Your task to perform on an android device: turn on translation in the chrome app Image 0: 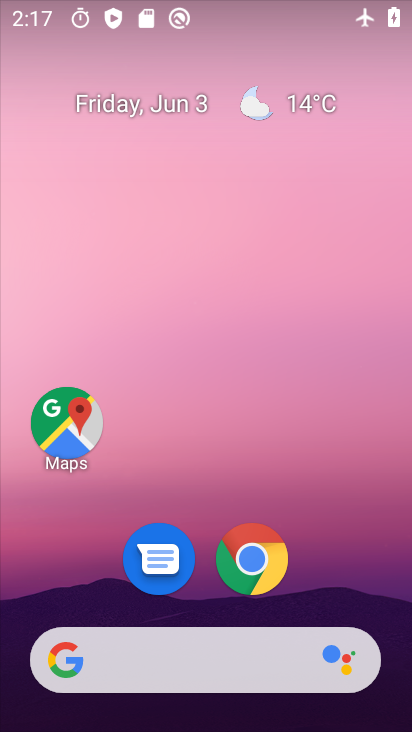
Step 0: click (247, 556)
Your task to perform on an android device: turn on translation in the chrome app Image 1: 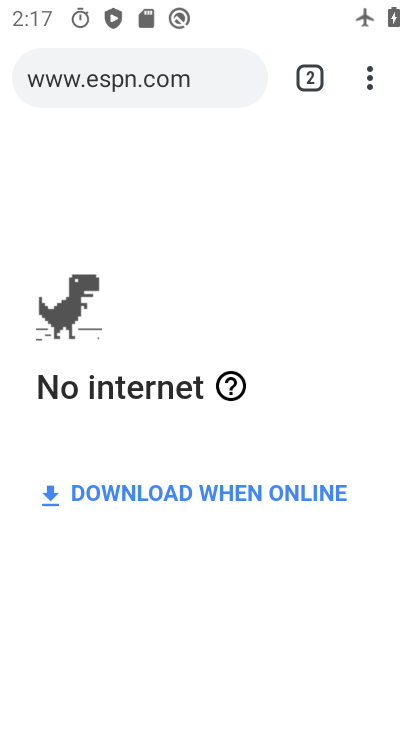
Step 1: click (357, 82)
Your task to perform on an android device: turn on translation in the chrome app Image 2: 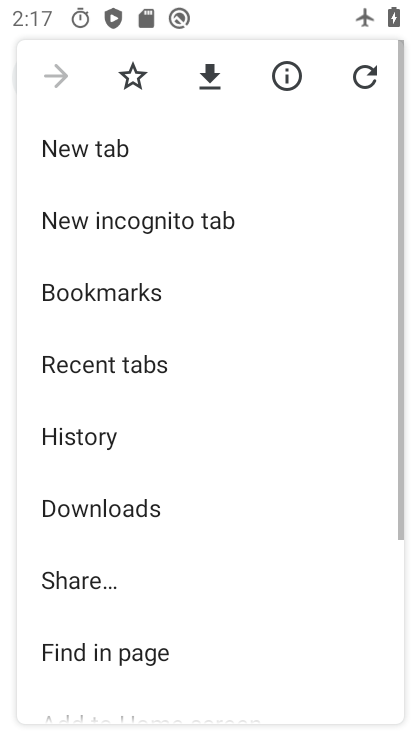
Step 2: drag from (192, 574) to (203, 129)
Your task to perform on an android device: turn on translation in the chrome app Image 3: 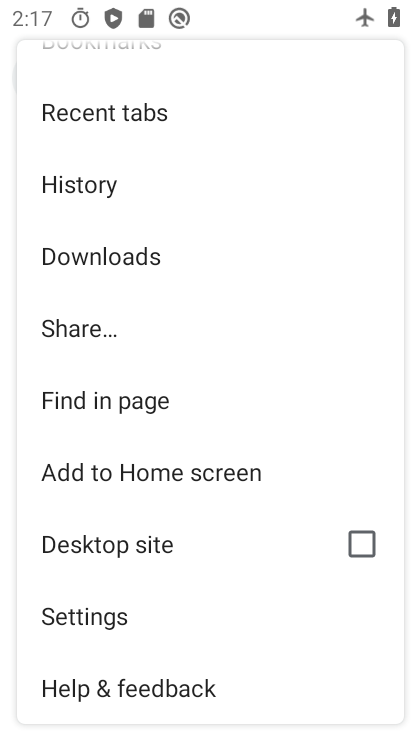
Step 3: click (122, 614)
Your task to perform on an android device: turn on translation in the chrome app Image 4: 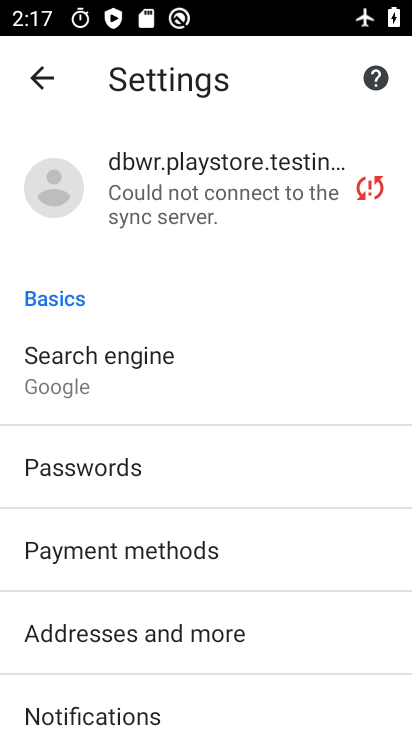
Step 4: drag from (133, 580) to (94, 155)
Your task to perform on an android device: turn on translation in the chrome app Image 5: 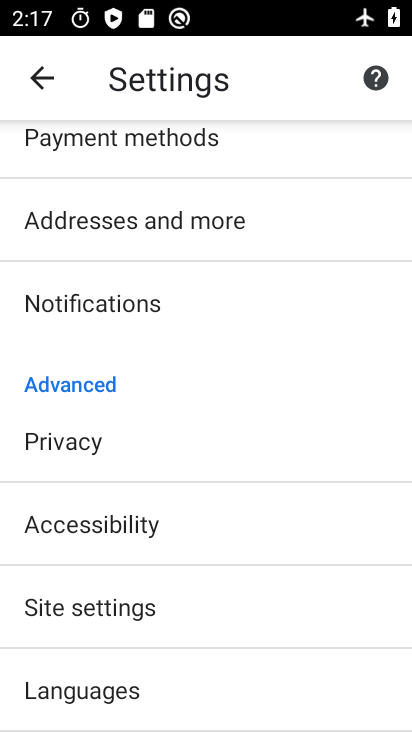
Step 5: drag from (174, 635) to (98, 81)
Your task to perform on an android device: turn on translation in the chrome app Image 6: 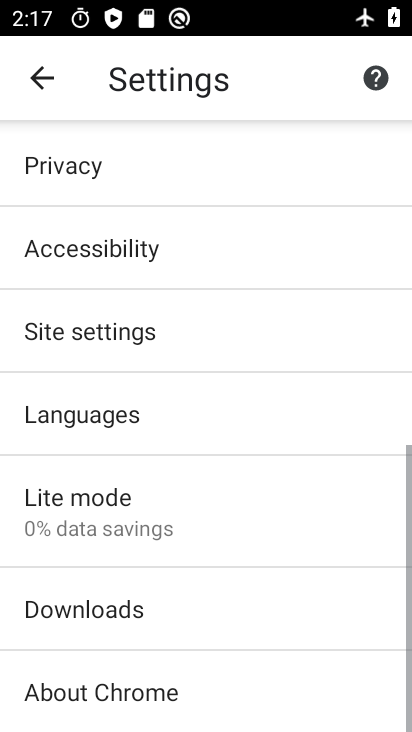
Step 6: click (75, 419)
Your task to perform on an android device: turn on translation in the chrome app Image 7: 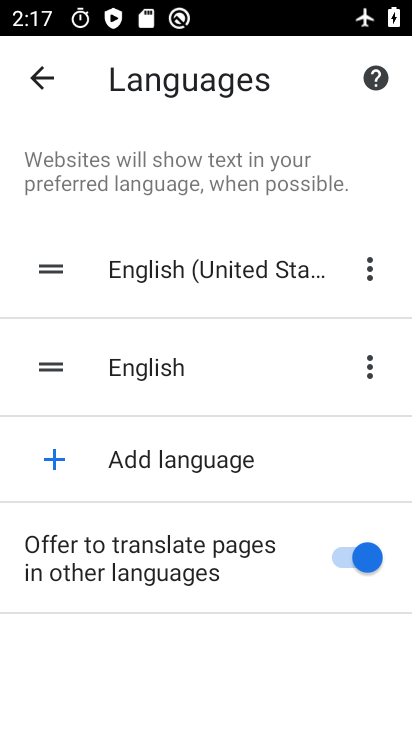
Step 7: click (195, 558)
Your task to perform on an android device: turn on translation in the chrome app Image 8: 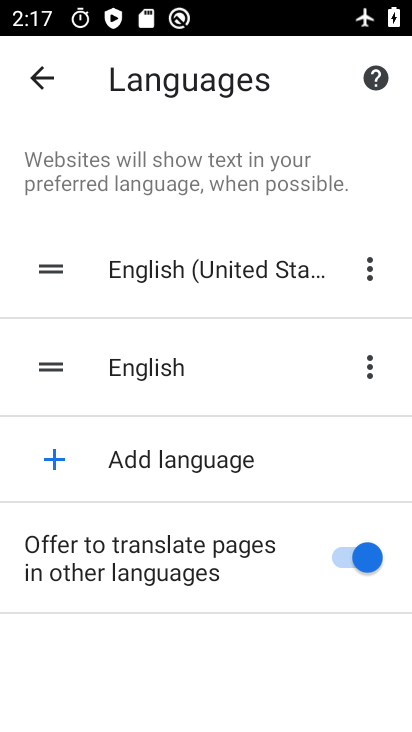
Step 8: click (195, 558)
Your task to perform on an android device: turn on translation in the chrome app Image 9: 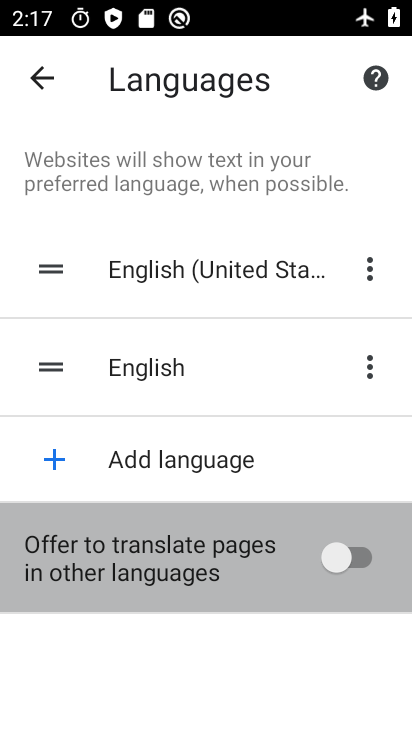
Step 9: click (195, 553)
Your task to perform on an android device: turn on translation in the chrome app Image 10: 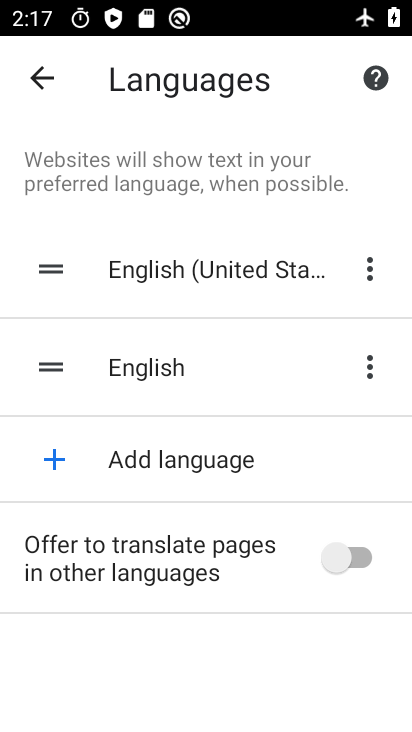
Step 10: task complete